Your task to perform on an android device: Open calendar and show me the third week of next month Image 0: 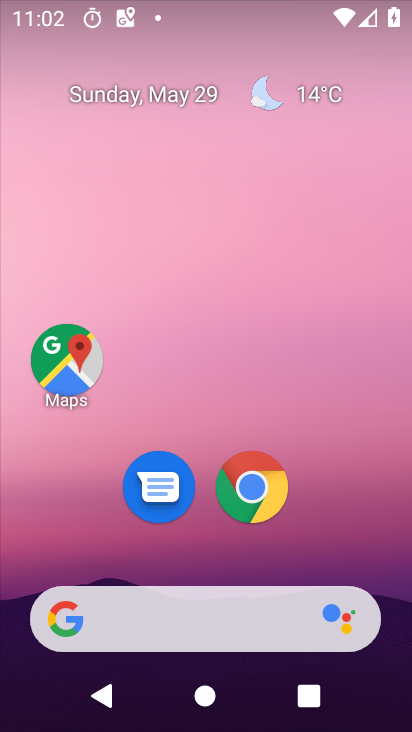
Step 0: drag from (371, 556) to (319, 173)
Your task to perform on an android device: Open calendar and show me the third week of next month Image 1: 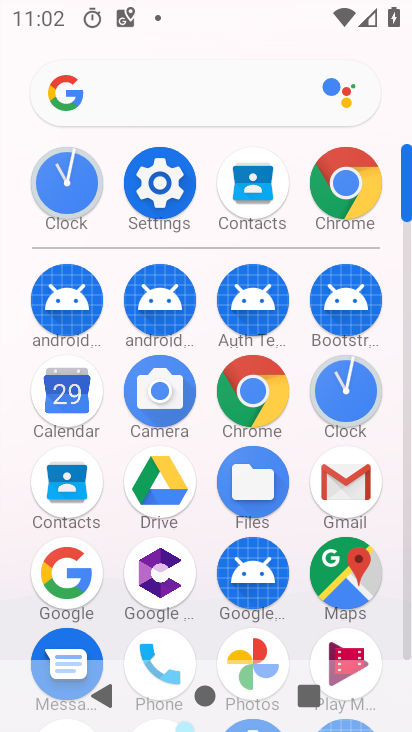
Step 1: click (57, 409)
Your task to perform on an android device: Open calendar and show me the third week of next month Image 2: 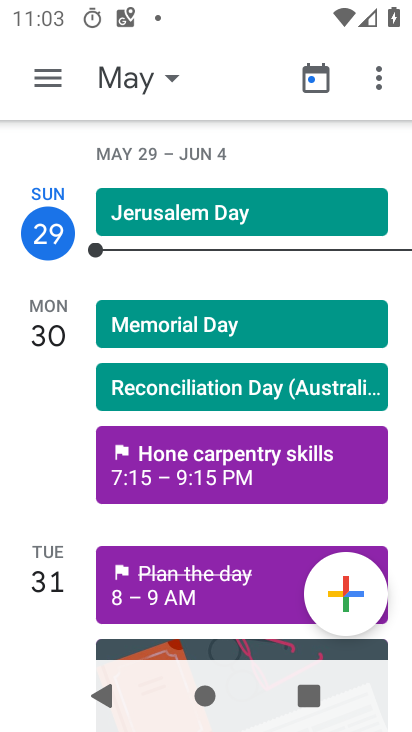
Step 2: click (164, 77)
Your task to perform on an android device: Open calendar and show me the third week of next month Image 3: 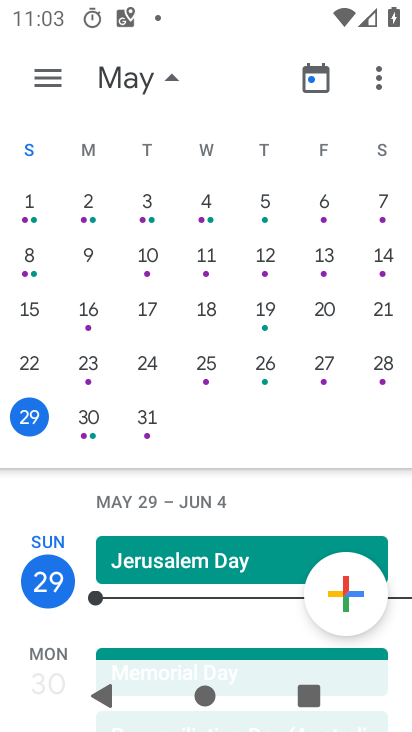
Step 3: drag from (388, 267) to (91, 238)
Your task to perform on an android device: Open calendar and show me the third week of next month Image 4: 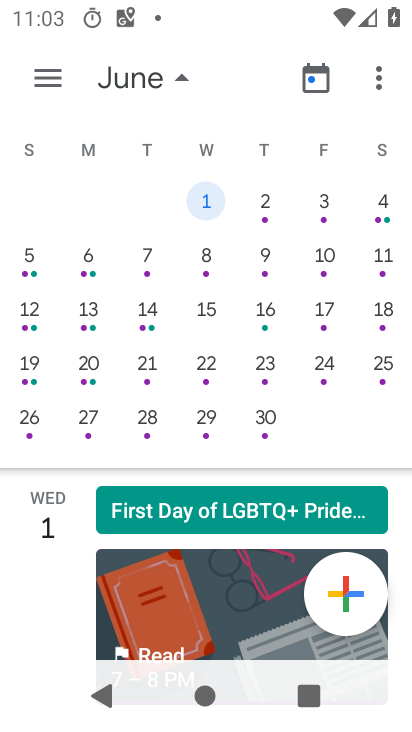
Step 4: click (267, 310)
Your task to perform on an android device: Open calendar and show me the third week of next month Image 5: 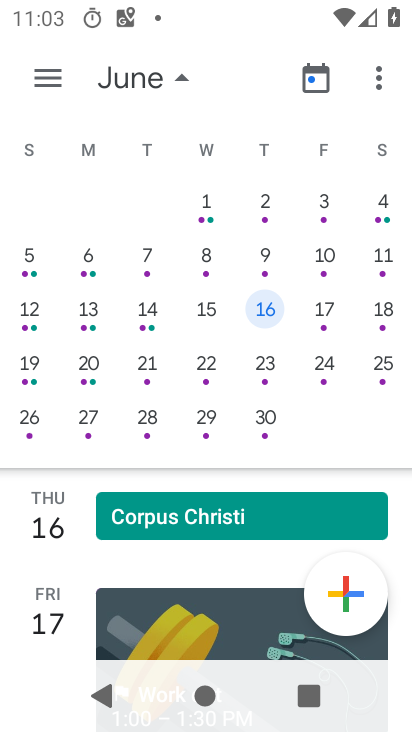
Step 5: click (62, 80)
Your task to perform on an android device: Open calendar and show me the third week of next month Image 6: 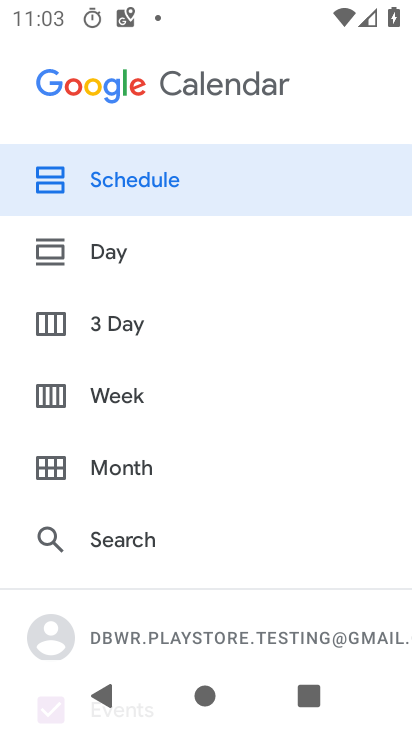
Step 6: click (91, 397)
Your task to perform on an android device: Open calendar and show me the third week of next month Image 7: 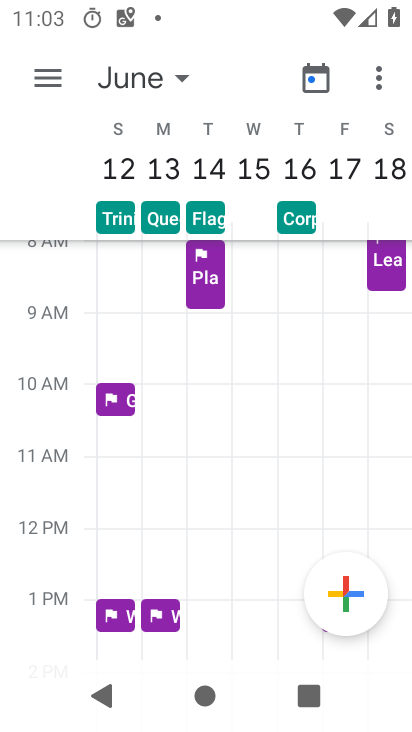
Step 7: task complete